Your task to perform on an android device: Turn on the flashlight Image 0: 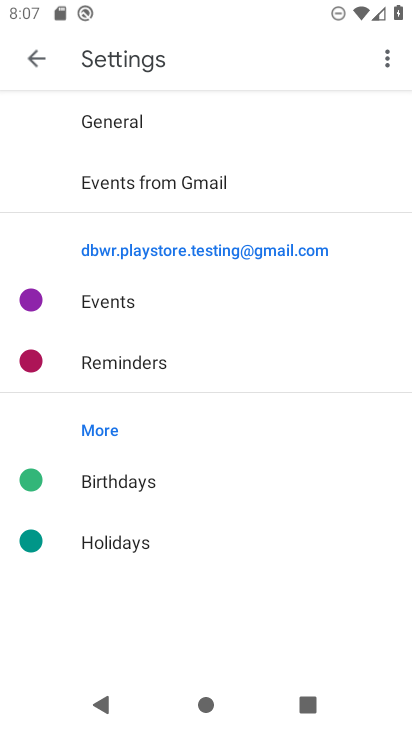
Step 0: press home button
Your task to perform on an android device: Turn on the flashlight Image 1: 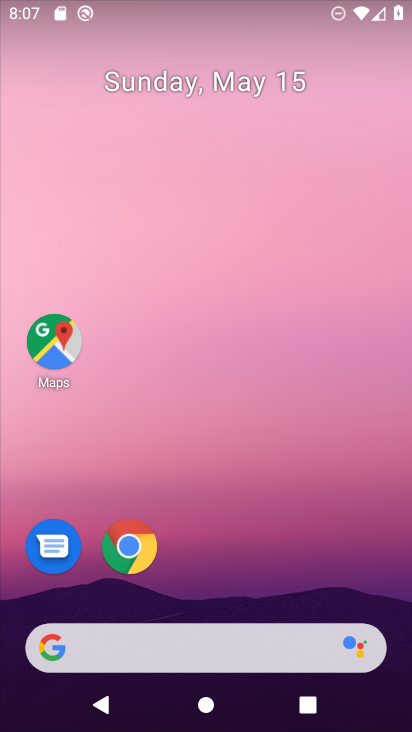
Step 1: drag from (286, 531) to (325, 69)
Your task to perform on an android device: Turn on the flashlight Image 2: 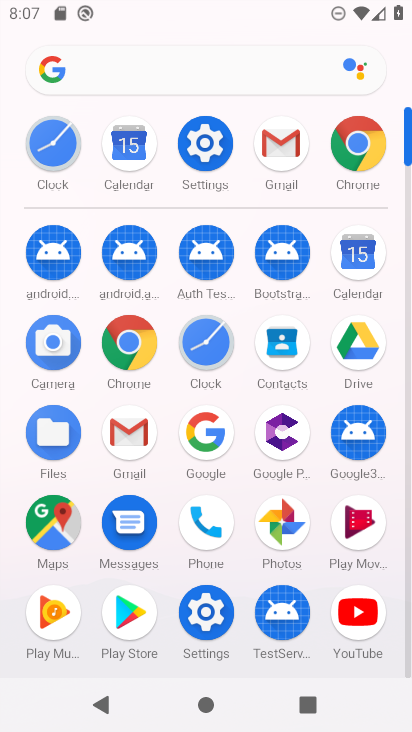
Step 2: click (213, 147)
Your task to perform on an android device: Turn on the flashlight Image 3: 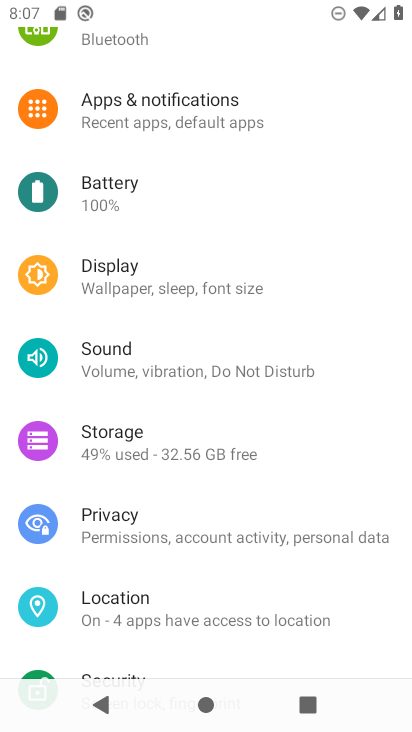
Step 3: drag from (213, 147) to (178, 694)
Your task to perform on an android device: Turn on the flashlight Image 4: 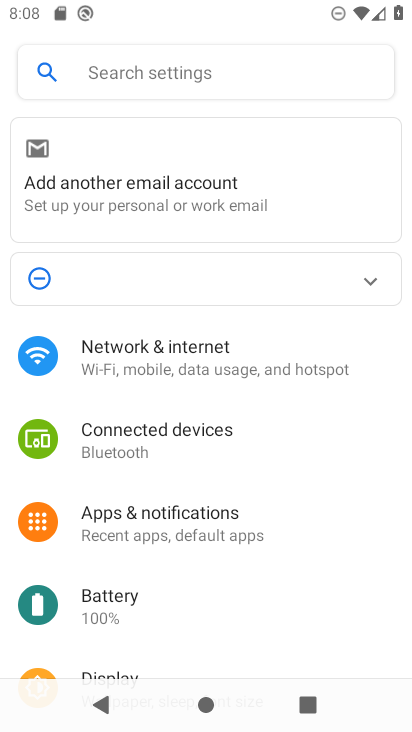
Step 4: click (266, 48)
Your task to perform on an android device: Turn on the flashlight Image 5: 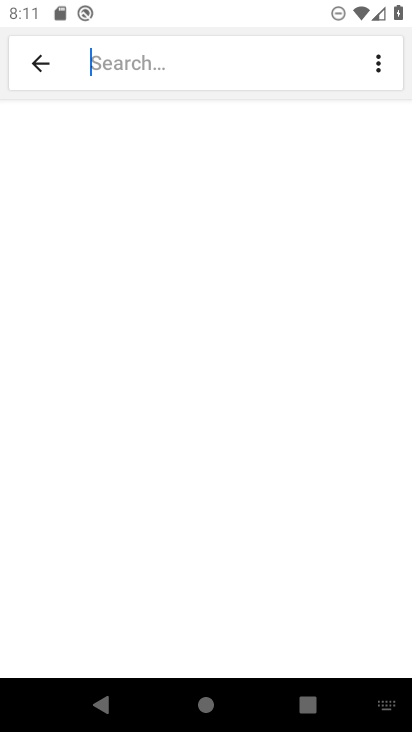
Step 5: type "Flashlight"
Your task to perform on an android device: Turn on the flashlight Image 6: 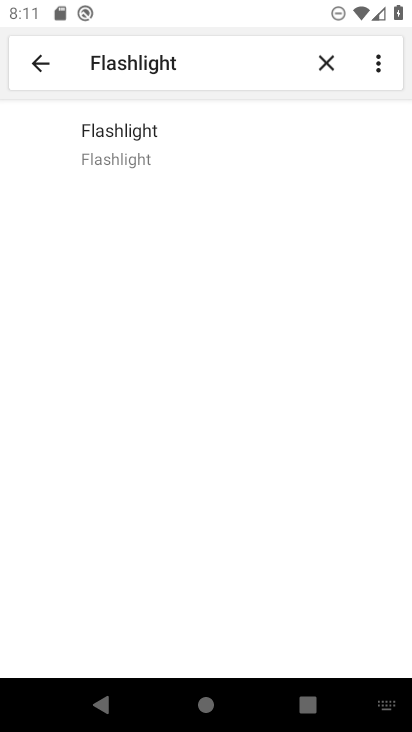
Step 6: click (124, 139)
Your task to perform on an android device: Turn on the flashlight Image 7: 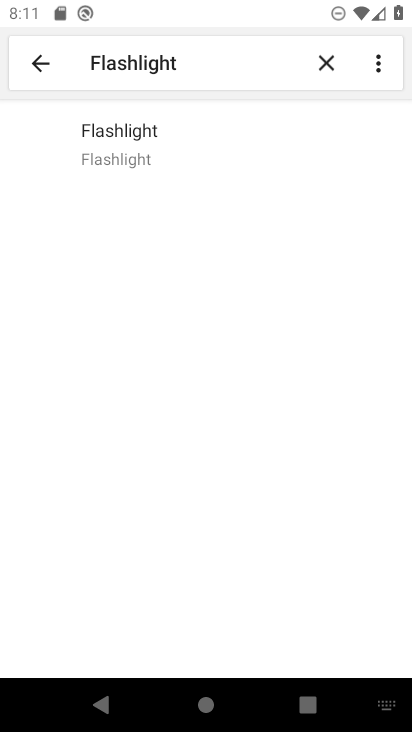
Step 7: task complete